Your task to perform on an android device: Open Maps and search for coffee Image 0: 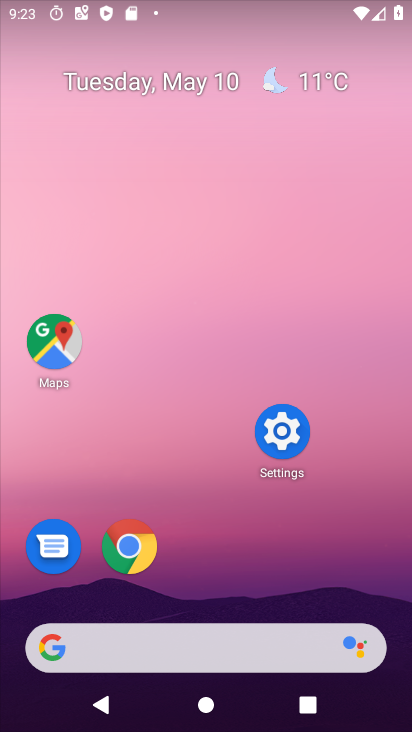
Step 0: click (61, 340)
Your task to perform on an android device: Open Maps and search for coffee Image 1: 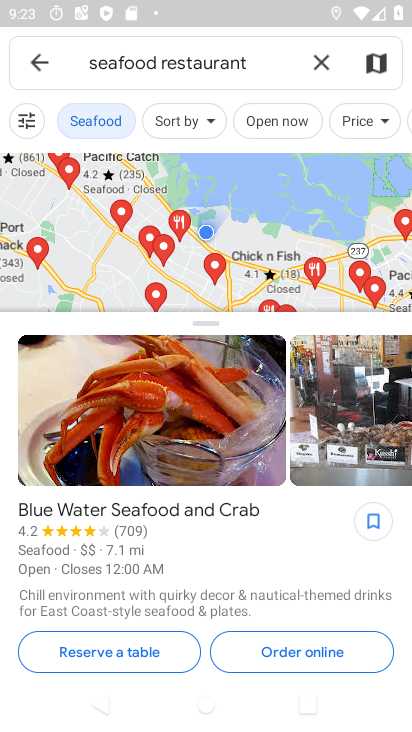
Step 1: click (318, 52)
Your task to perform on an android device: Open Maps and search for coffee Image 2: 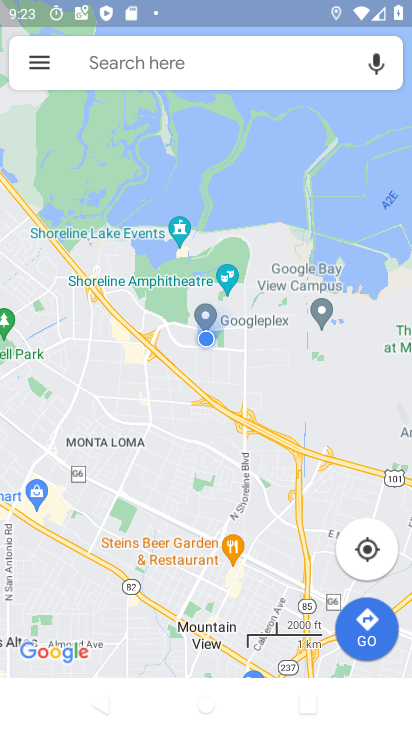
Step 2: click (160, 66)
Your task to perform on an android device: Open Maps and search for coffee Image 3: 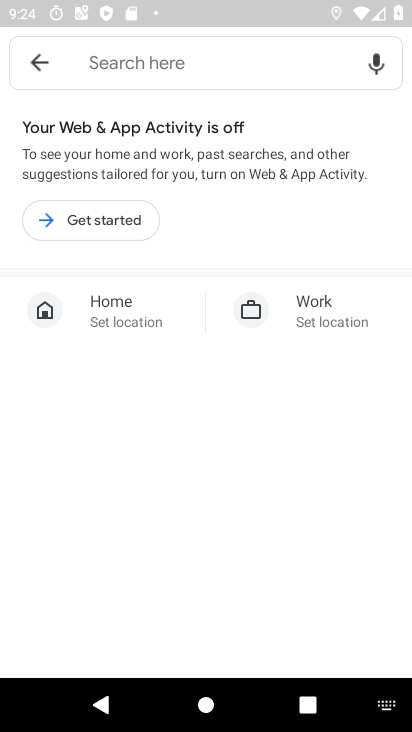
Step 3: type "coffee"
Your task to perform on an android device: Open Maps and search for coffee Image 4: 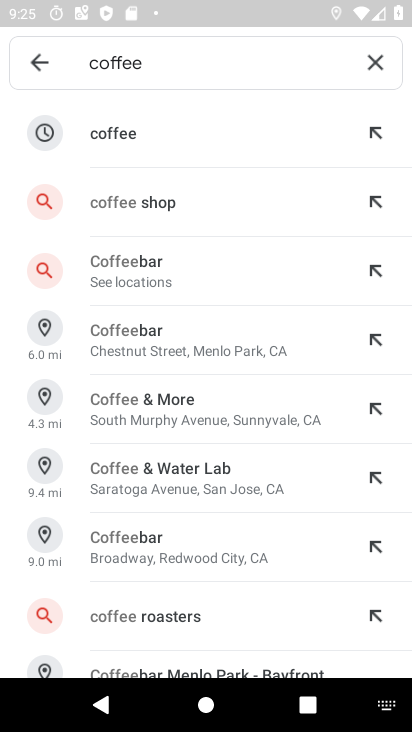
Step 4: click (126, 138)
Your task to perform on an android device: Open Maps and search for coffee Image 5: 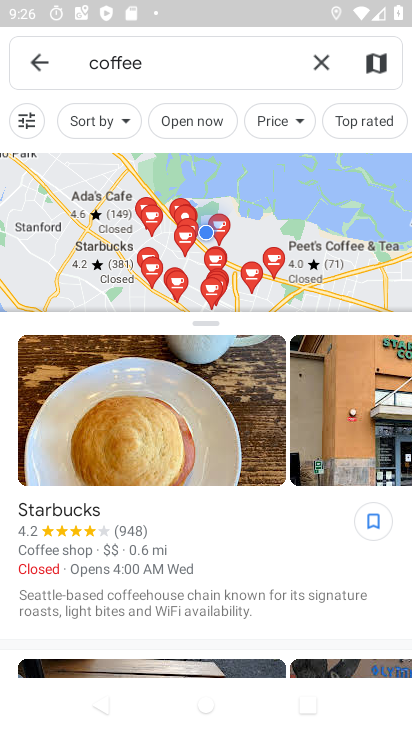
Step 5: task complete